Your task to perform on an android device: search for starred emails in the gmail app Image 0: 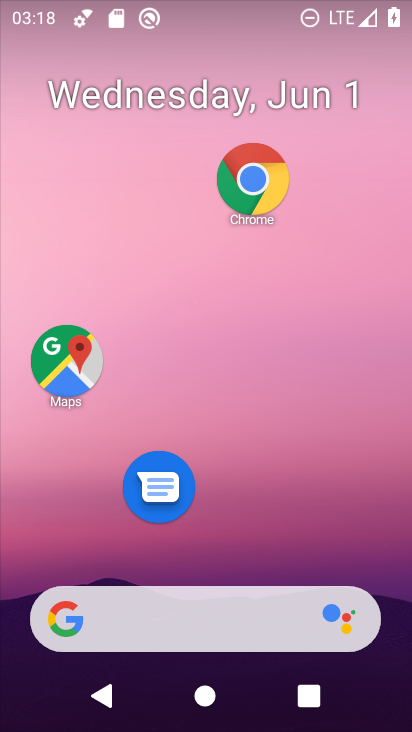
Step 0: drag from (269, 540) to (246, 221)
Your task to perform on an android device: search for starred emails in the gmail app Image 1: 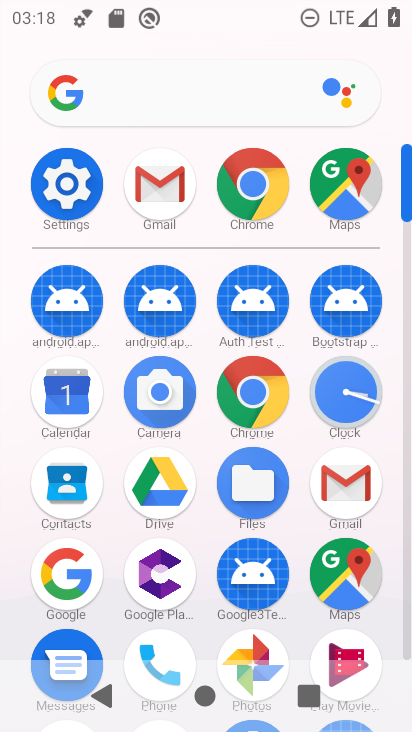
Step 1: click (148, 179)
Your task to perform on an android device: search for starred emails in the gmail app Image 2: 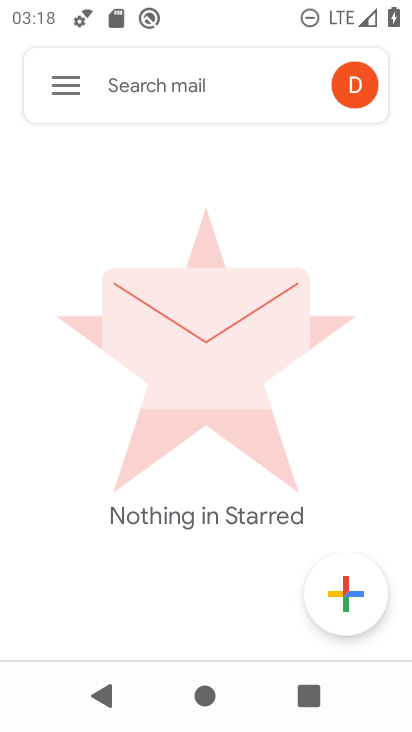
Step 2: click (62, 87)
Your task to perform on an android device: search for starred emails in the gmail app Image 3: 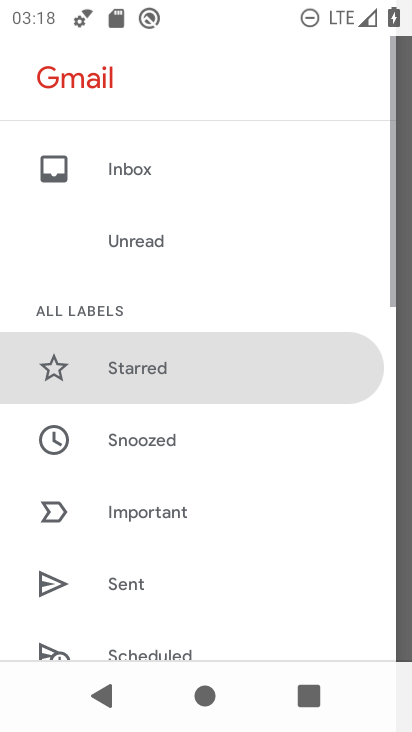
Step 3: click (169, 376)
Your task to perform on an android device: search for starred emails in the gmail app Image 4: 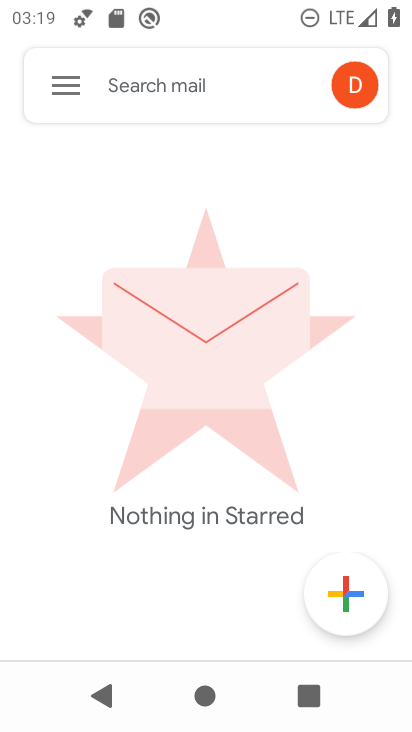
Step 4: task complete